Your task to perform on an android device: Show me productivity apps on the Play Store Image 0: 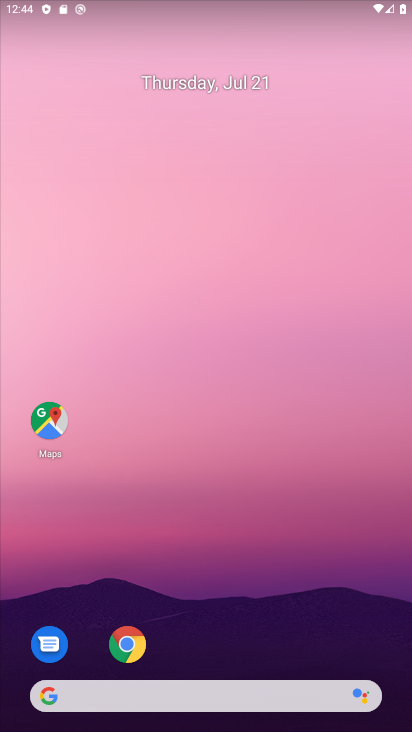
Step 0: drag from (218, 670) to (255, 16)
Your task to perform on an android device: Show me productivity apps on the Play Store Image 1: 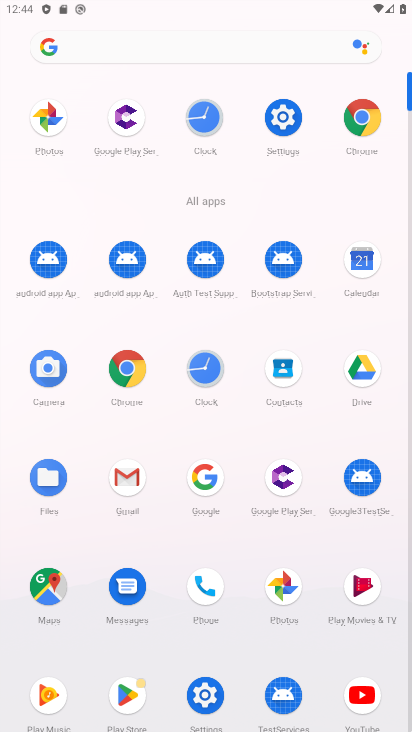
Step 1: click (122, 698)
Your task to perform on an android device: Show me productivity apps on the Play Store Image 2: 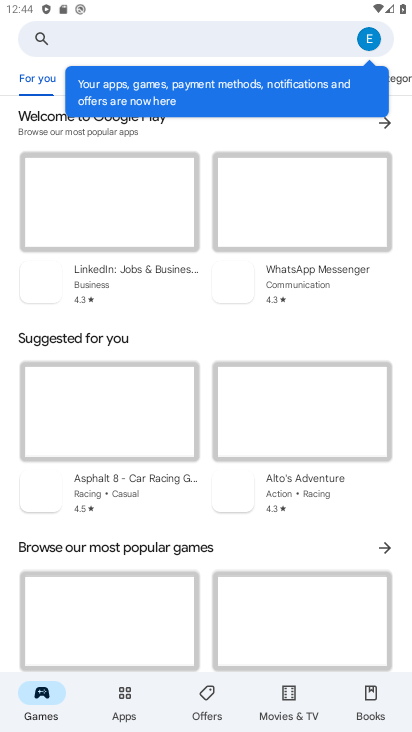
Step 2: click (131, 704)
Your task to perform on an android device: Show me productivity apps on the Play Store Image 3: 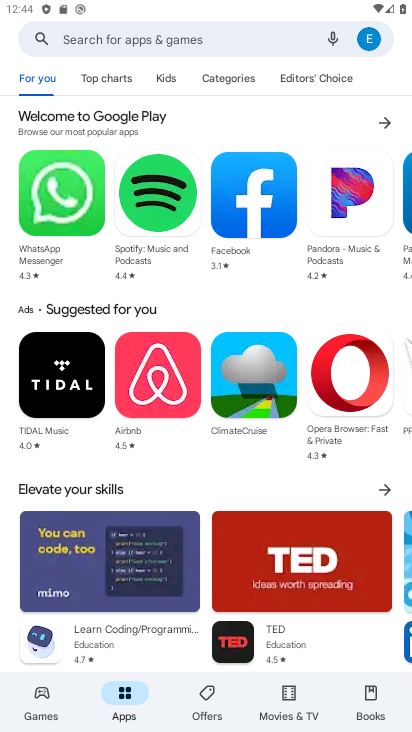
Step 3: click (240, 79)
Your task to perform on an android device: Show me productivity apps on the Play Store Image 4: 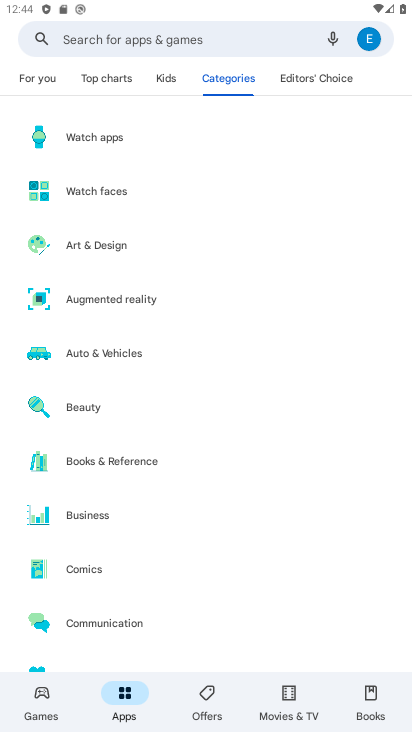
Step 4: drag from (206, 621) to (205, 107)
Your task to perform on an android device: Show me productivity apps on the Play Store Image 5: 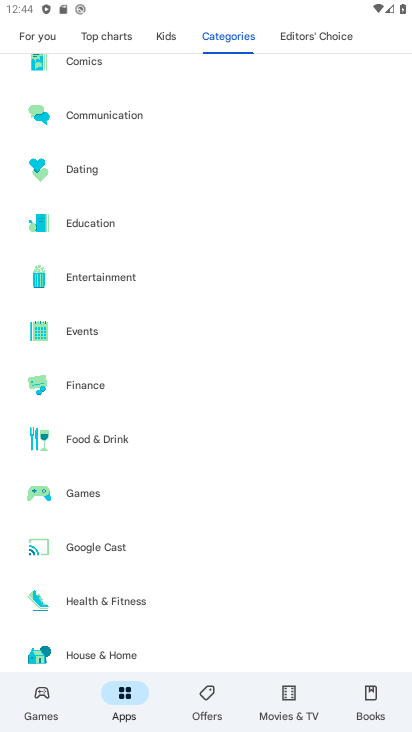
Step 5: drag from (128, 533) to (124, 76)
Your task to perform on an android device: Show me productivity apps on the Play Store Image 6: 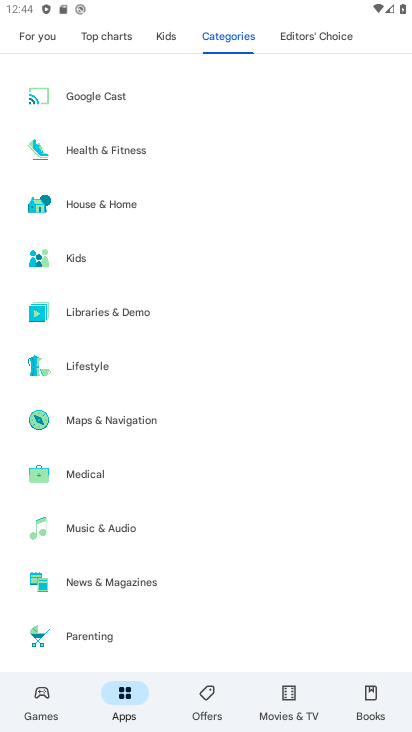
Step 6: drag from (128, 585) to (112, 219)
Your task to perform on an android device: Show me productivity apps on the Play Store Image 7: 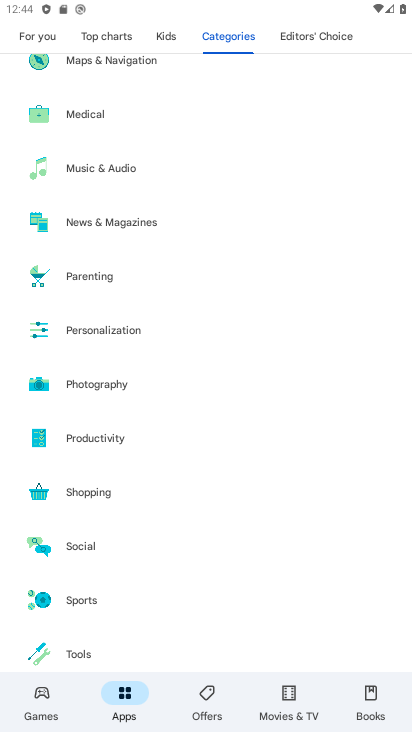
Step 7: click (92, 422)
Your task to perform on an android device: Show me productivity apps on the Play Store Image 8: 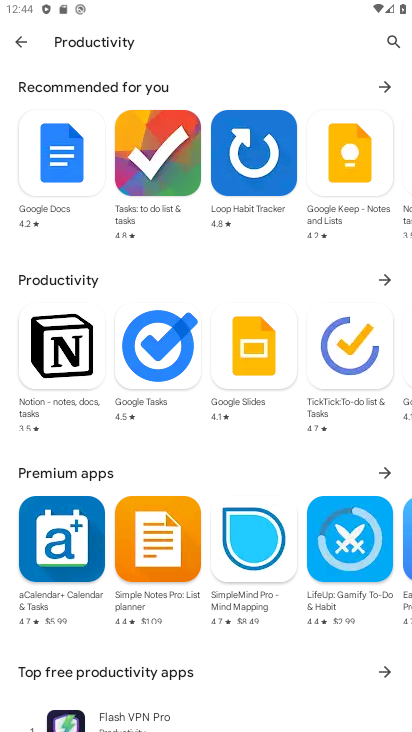
Step 8: task complete